Your task to perform on an android device: Open display settings Image 0: 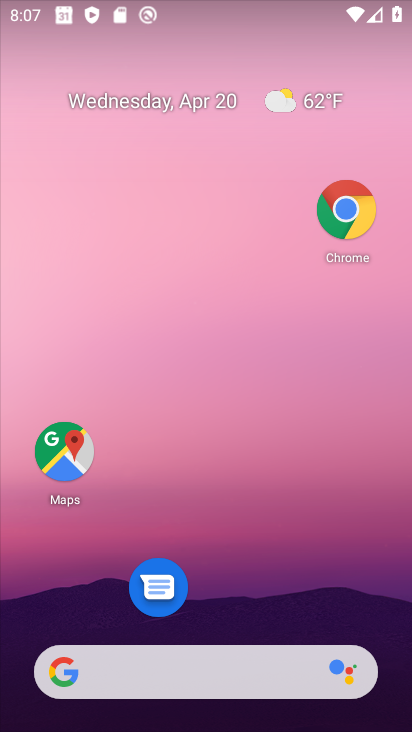
Step 0: drag from (226, 627) to (132, 127)
Your task to perform on an android device: Open display settings Image 1: 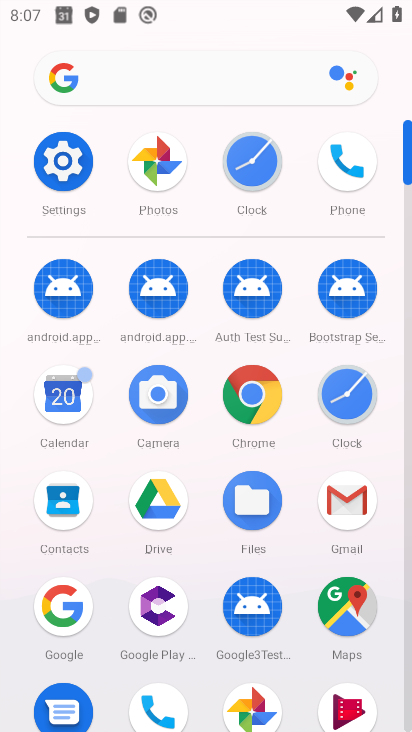
Step 1: click (74, 164)
Your task to perform on an android device: Open display settings Image 2: 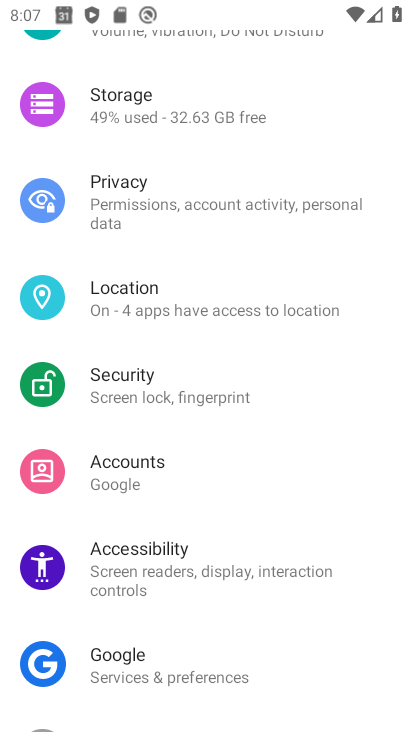
Step 2: drag from (130, 653) to (213, 242)
Your task to perform on an android device: Open display settings Image 3: 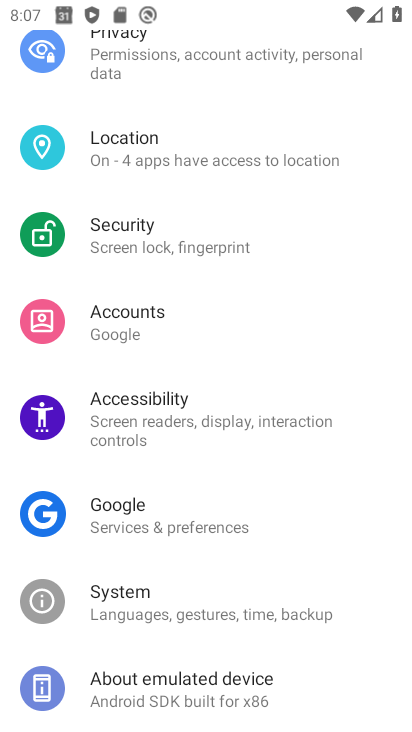
Step 3: drag from (204, 138) to (145, 598)
Your task to perform on an android device: Open display settings Image 4: 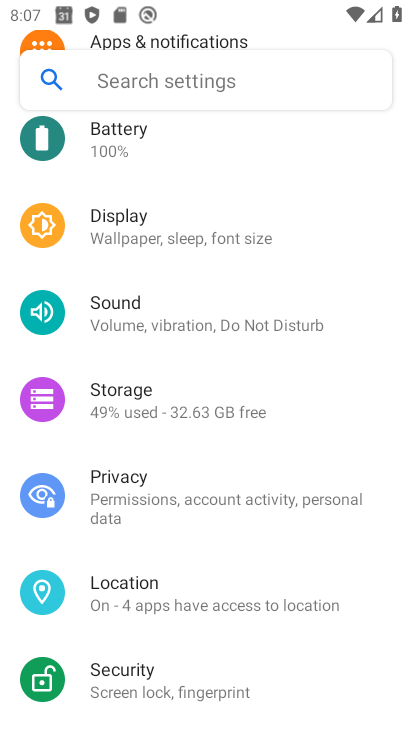
Step 4: click (187, 235)
Your task to perform on an android device: Open display settings Image 5: 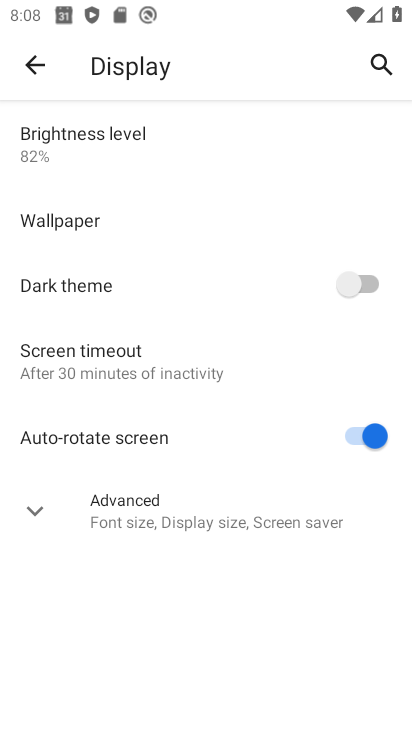
Step 5: task complete